Your task to perform on an android device: add a contact Image 0: 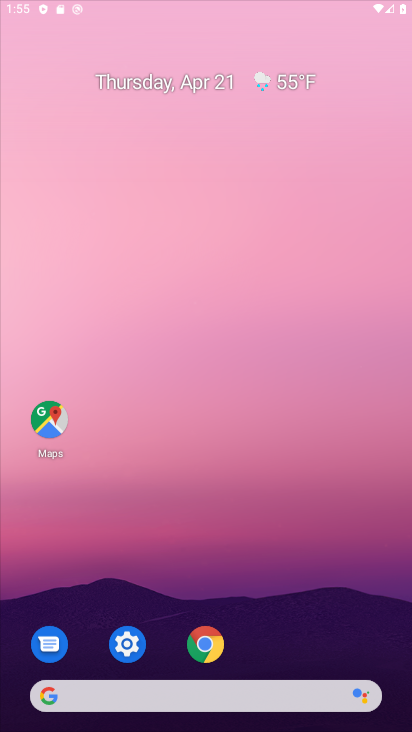
Step 0: drag from (164, 137) to (177, 106)
Your task to perform on an android device: add a contact Image 1: 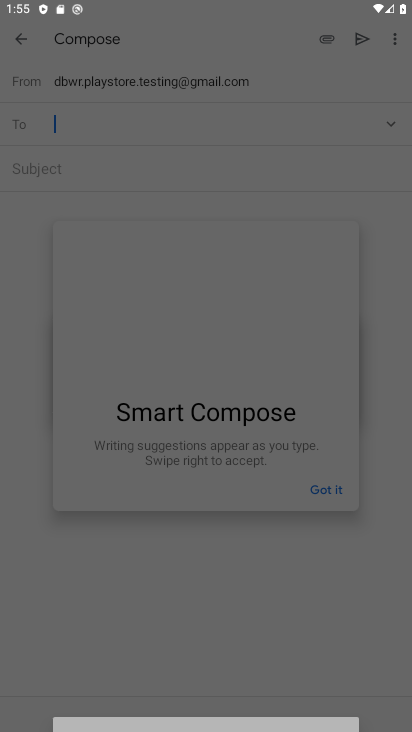
Step 1: press home button
Your task to perform on an android device: add a contact Image 2: 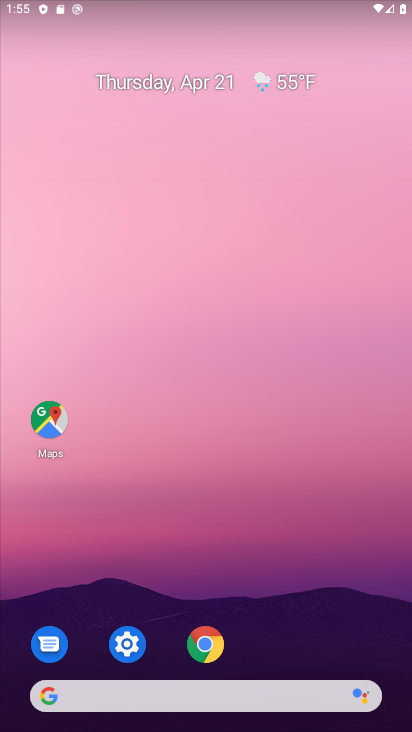
Step 2: click (94, 45)
Your task to perform on an android device: add a contact Image 3: 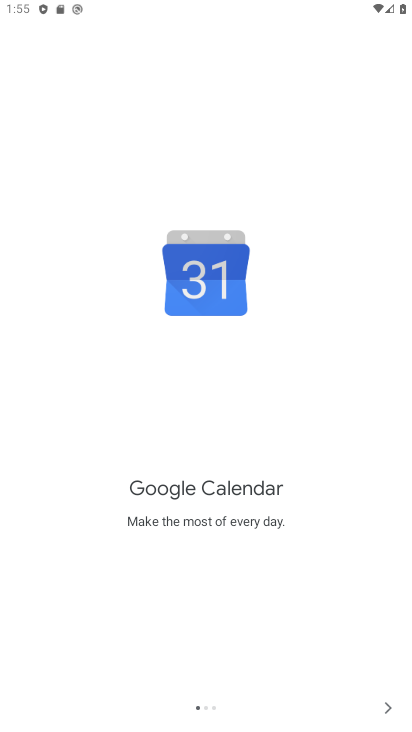
Step 3: click (384, 711)
Your task to perform on an android device: add a contact Image 4: 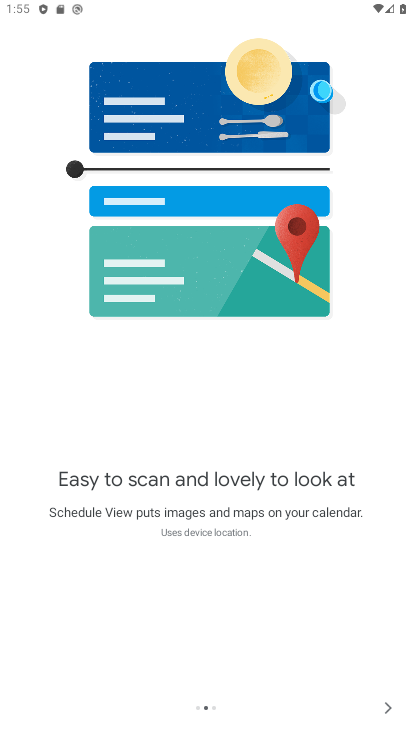
Step 4: click (389, 710)
Your task to perform on an android device: add a contact Image 5: 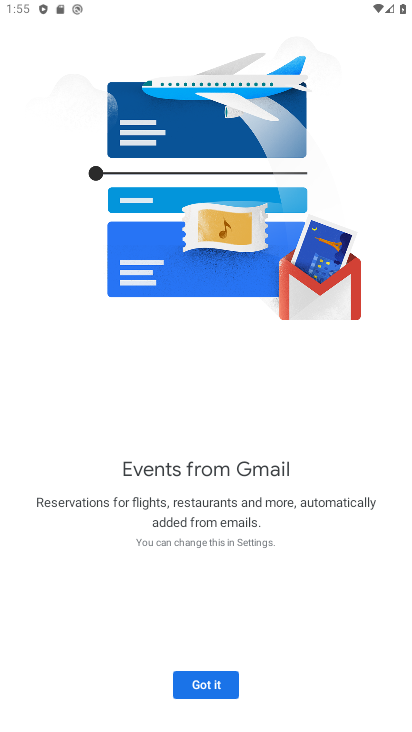
Step 5: press home button
Your task to perform on an android device: add a contact Image 6: 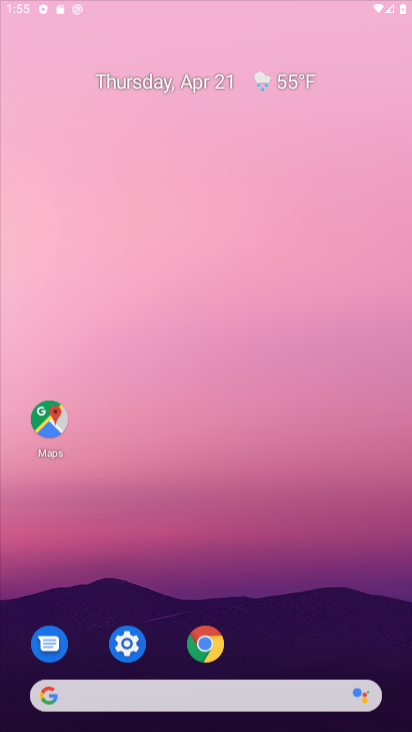
Step 6: press home button
Your task to perform on an android device: add a contact Image 7: 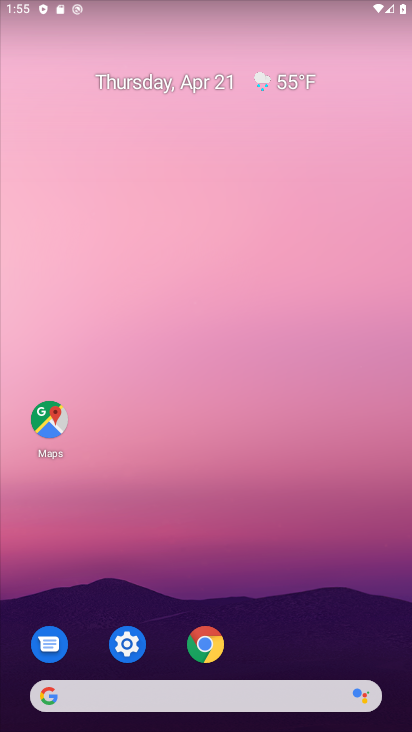
Step 7: drag from (274, 659) to (127, 113)
Your task to perform on an android device: add a contact Image 8: 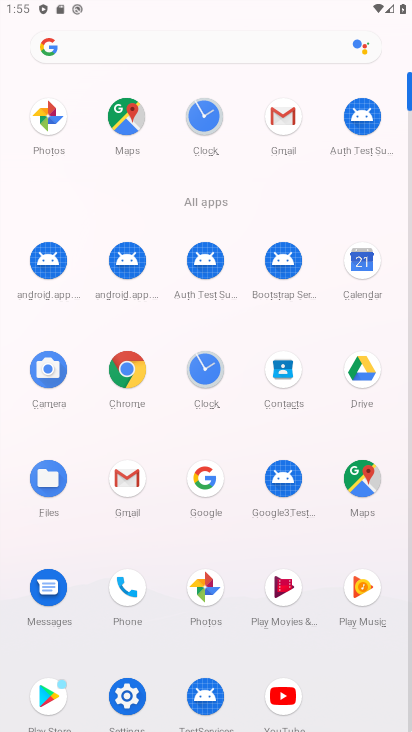
Step 8: click (289, 355)
Your task to perform on an android device: add a contact Image 9: 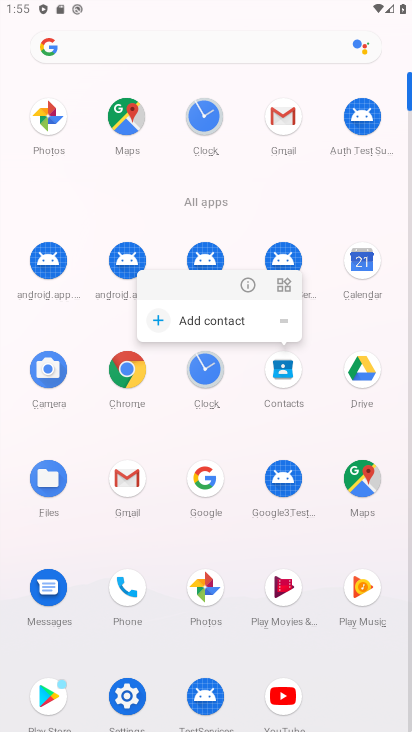
Step 9: click (285, 364)
Your task to perform on an android device: add a contact Image 10: 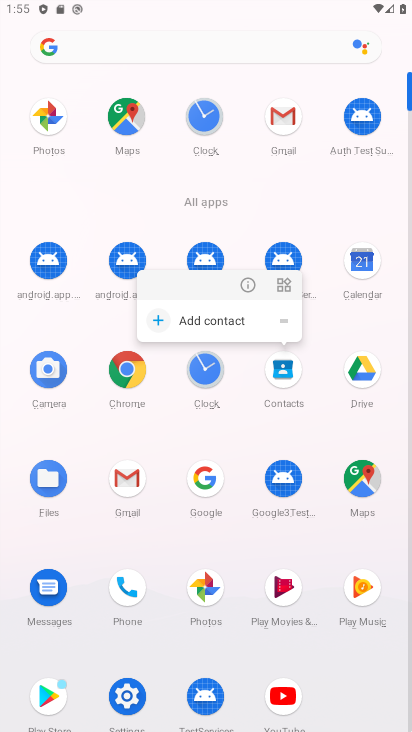
Step 10: click (220, 320)
Your task to perform on an android device: add a contact Image 11: 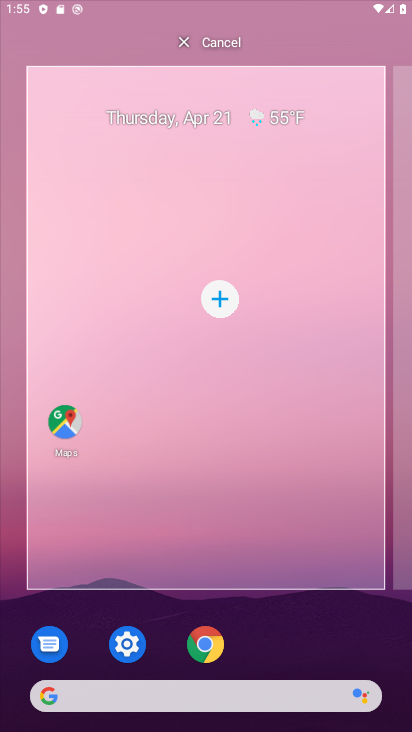
Step 11: click (220, 320)
Your task to perform on an android device: add a contact Image 12: 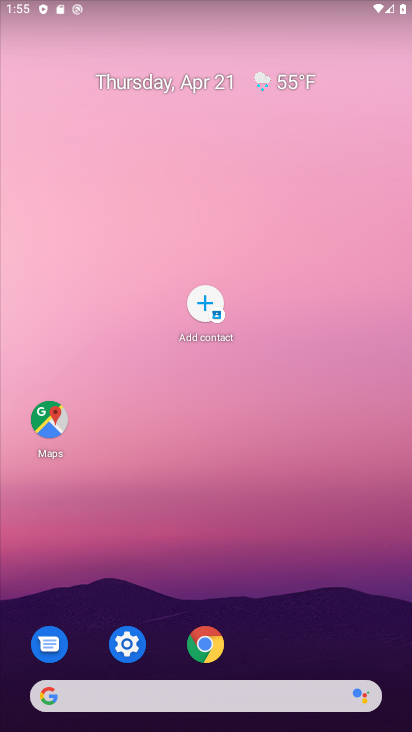
Step 12: drag from (323, 626) to (96, 49)
Your task to perform on an android device: add a contact Image 13: 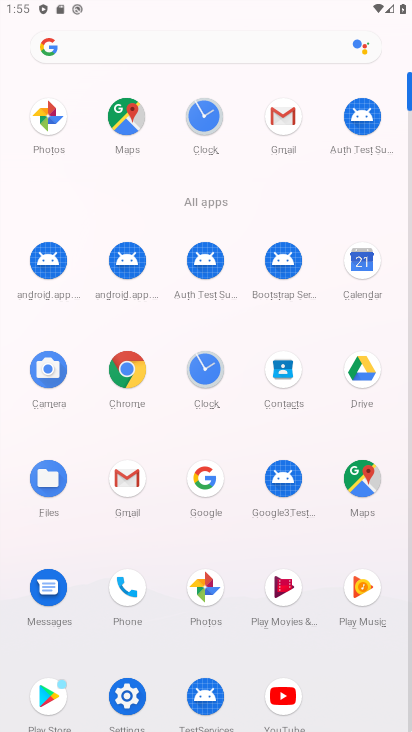
Step 13: click (284, 369)
Your task to perform on an android device: add a contact Image 14: 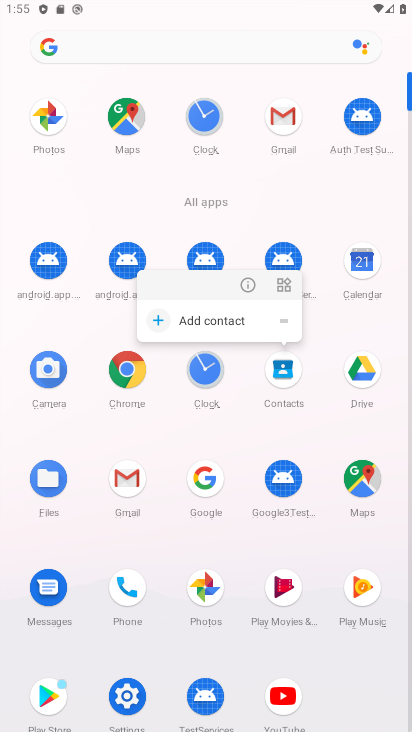
Step 14: click (287, 368)
Your task to perform on an android device: add a contact Image 15: 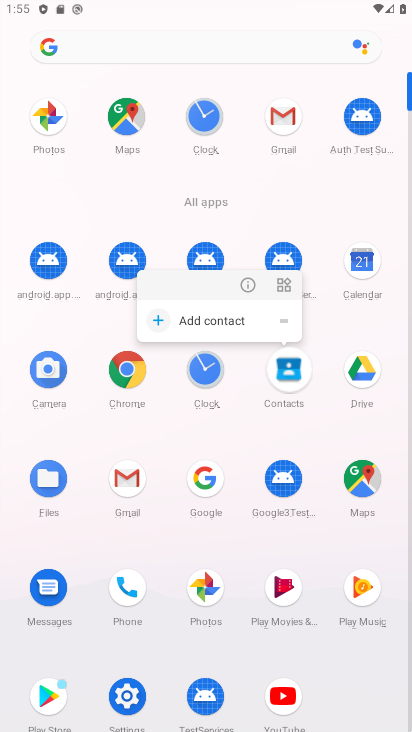
Step 15: click (293, 355)
Your task to perform on an android device: add a contact Image 16: 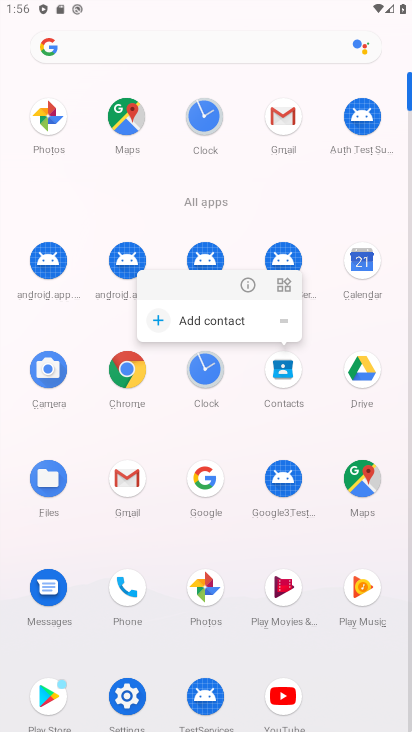
Step 16: click (291, 364)
Your task to perform on an android device: add a contact Image 17: 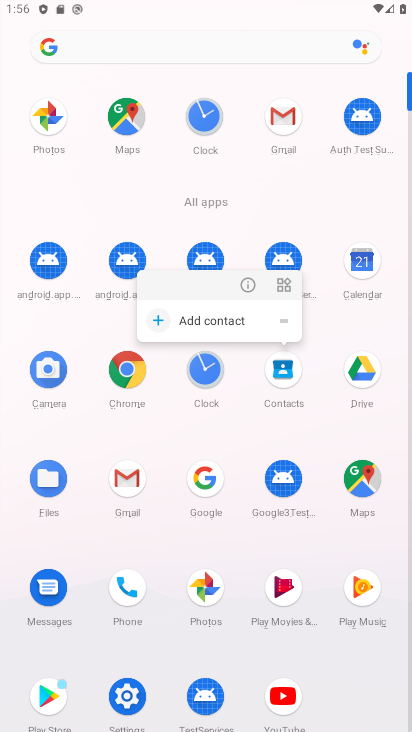
Step 17: click (281, 351)
Your task to perform on an android device: add a contact Image 18: 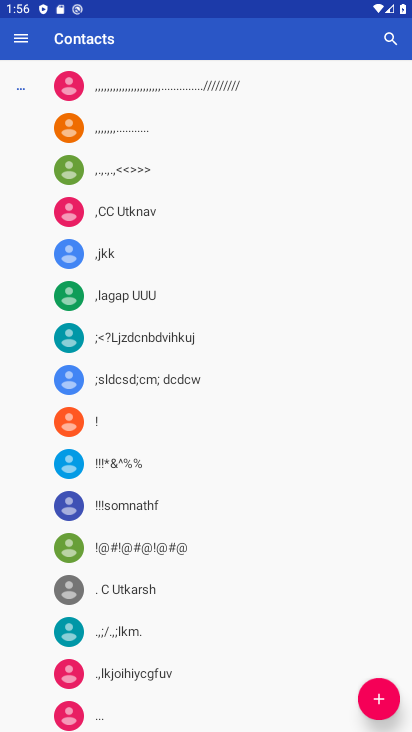
Step 18: click (375, 706)
Your task to perform on an android device: add a contact Image 19: 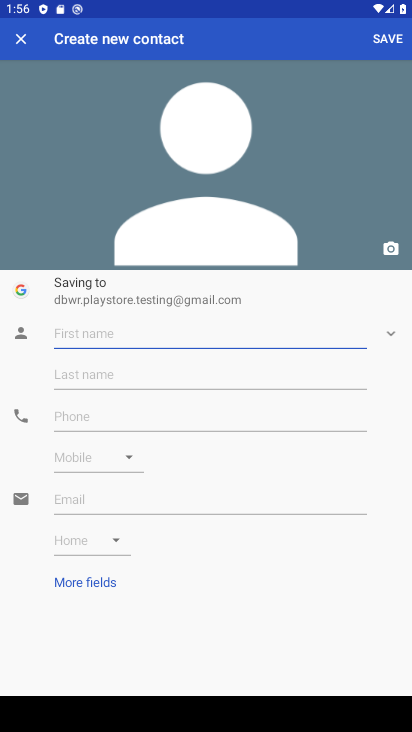
Step 19: type "radhe"
Your task to perform on an android device: add a contact Image 20: 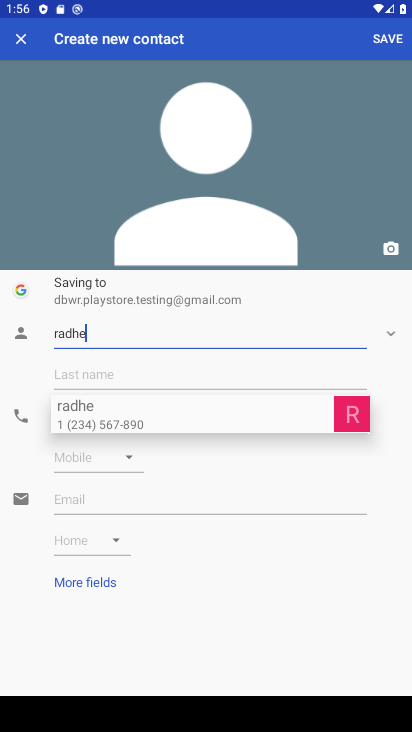
Step 20: type "ka"
Your task to perform on an android device: add a contact Image 21: 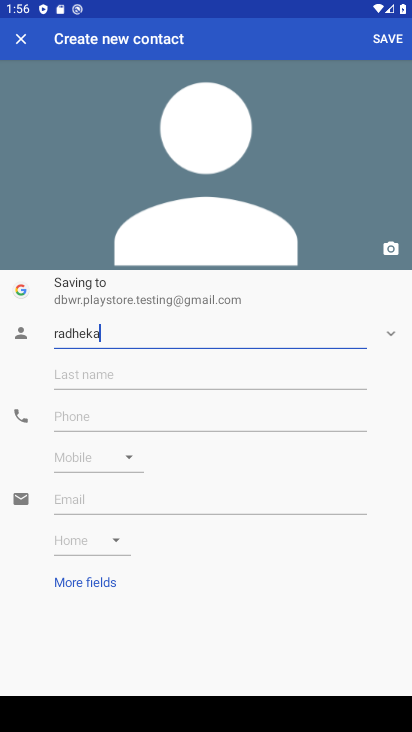
Step 21: click (59, 412)
Your task to perform on an android device: add a contact Image 22: 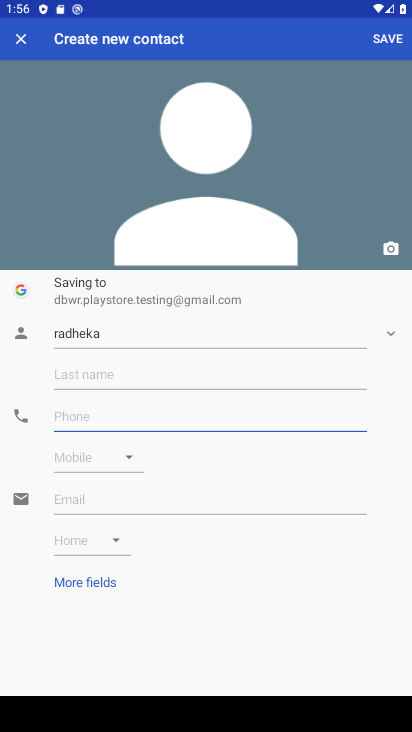
Step 22: type "7894356547"
Your task to perform on an android device: add a contact Image 23: 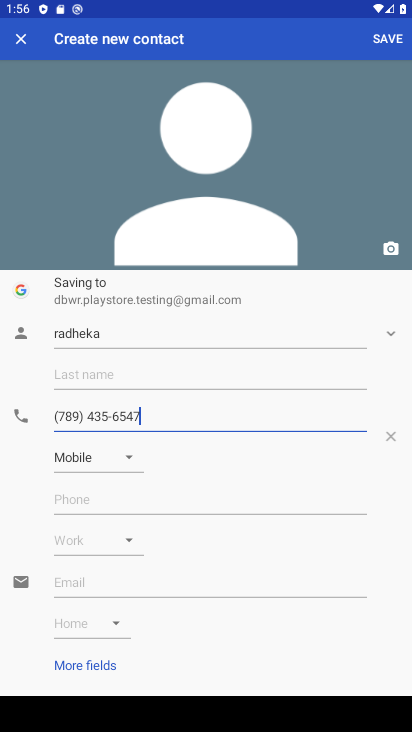
Step 23: click (400, 41)
Your task to perform on an android device: add a contact Image 24: 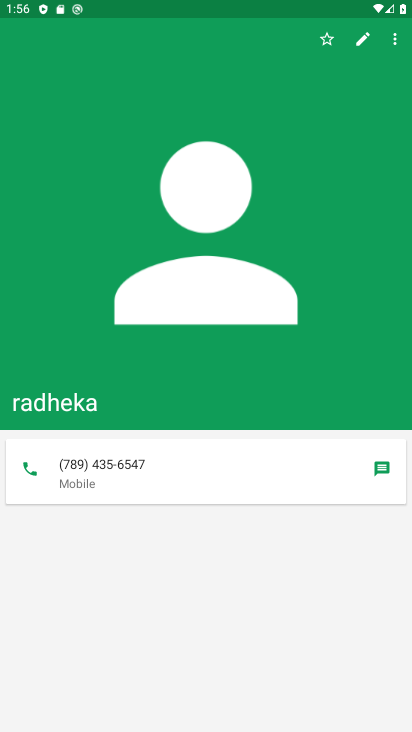
Step 24: task complete